Your task to perform on an android device: Turn on the flashlight Image 0: 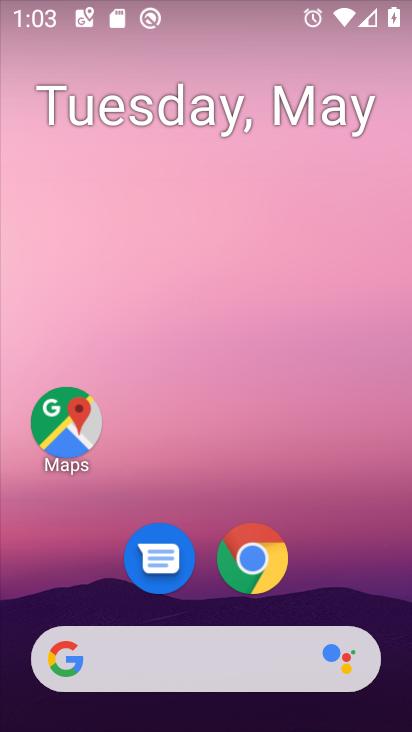
Step 0: drag from (330, 598) to (265, 213)
Your task to perform on an android device: Turn on the flashlight Image 1: 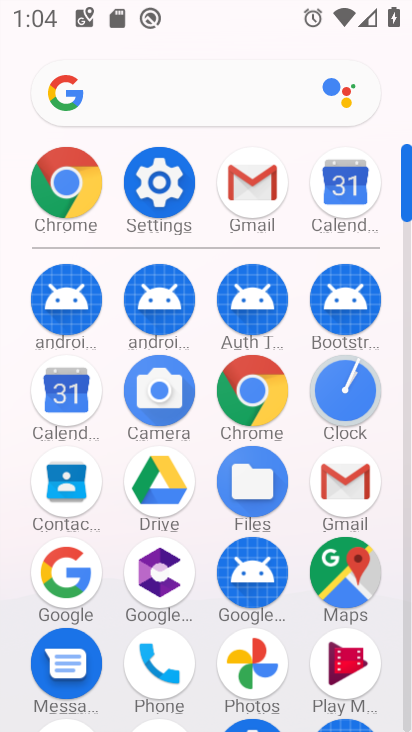
Step 1: drag from (250, 4) to (190, 637)
Your task to perform on an android device: Turn on the flashlight Image 2: 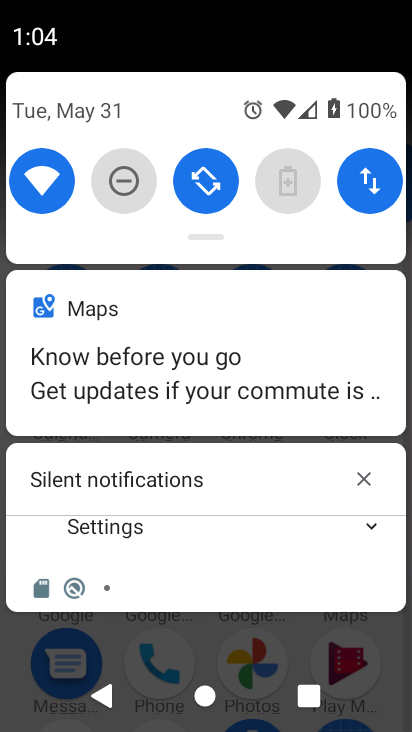
Step 2: drag from (243, 200) to (219, 593)
Your task to perform on an android device: Turn on the flashlight Image 3: 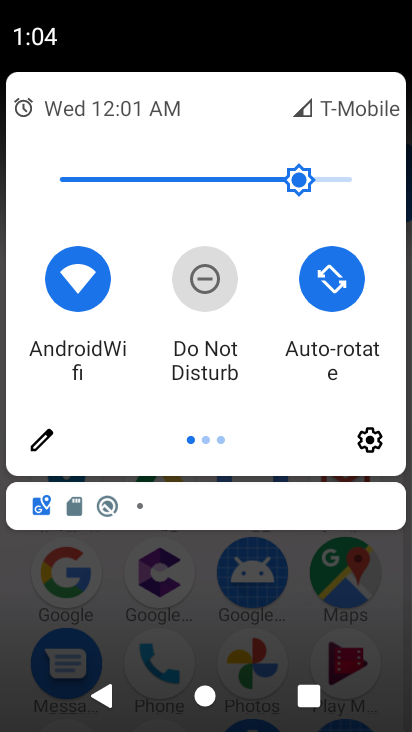
Step 3: click (55, 439)
Your task to perform on an android device: Turn on the flashlight Image 4: 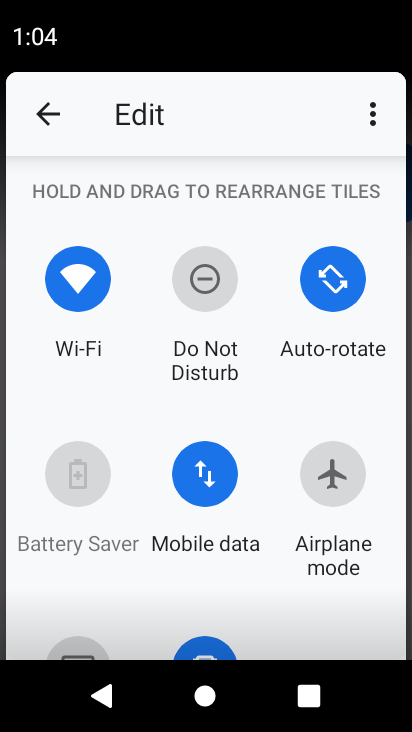
Step 4: task complete